Your task to perform on an android device: Open Chrome and go to settings Image 0: 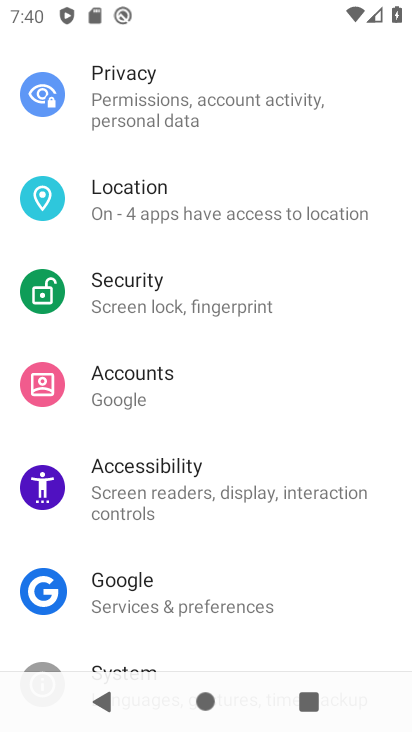
Step 0: press home button
Your task to perform on an android device: Open Chrome and go to settings Image 1: 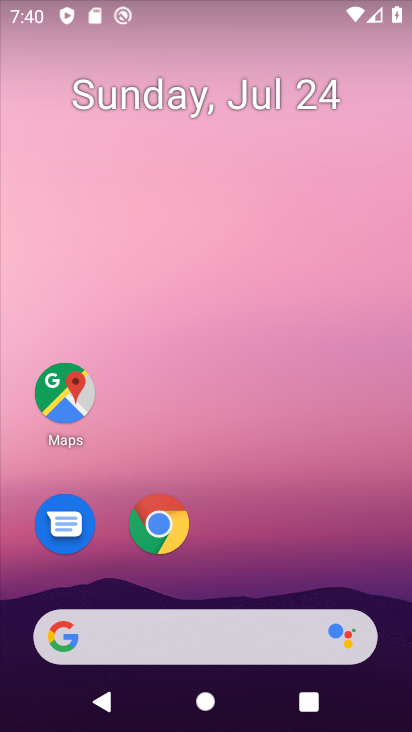
Step 1: click (159, 528)
Your task to perform on an android device: Open Chrome and go to settings Image 2: 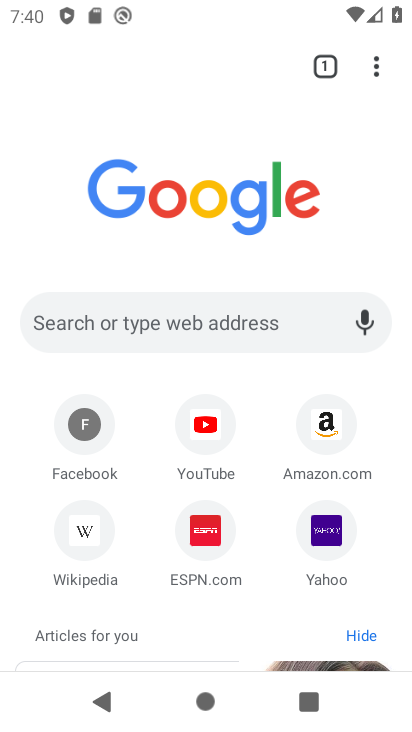
Step 2: click (372, 58)
Your task to perform on an android device: Open Chrome and go to settings Image 3: 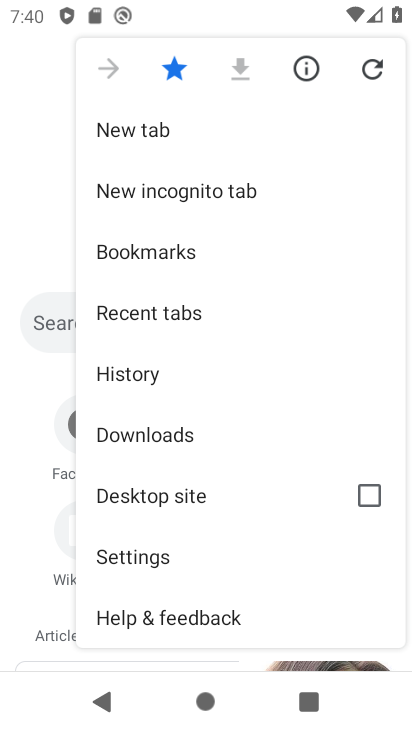
Step 3: click (152, 553)
Your task to perform on an android device: Open Chrome and go to settings Image 4: 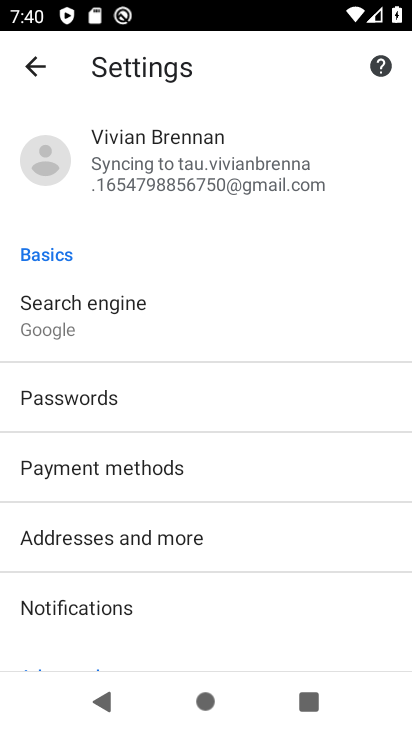
Step 4: task complete